Your task to perform on an android device: Open sound settings Image 0: 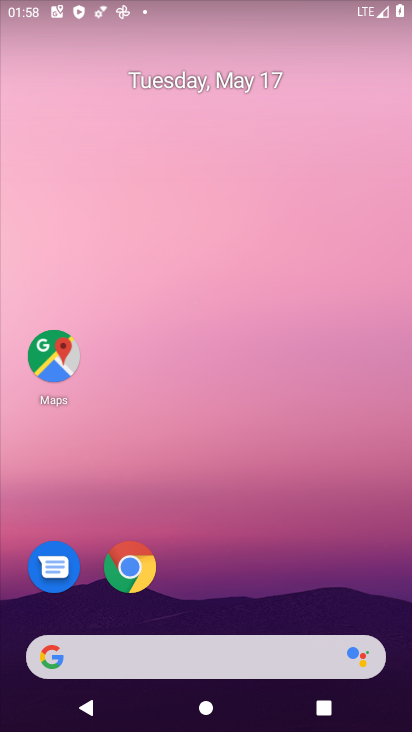
Step 0: drag from (396, 626) to (333, 32)
Your task to perform on an android device: Open sound settings Image 1: 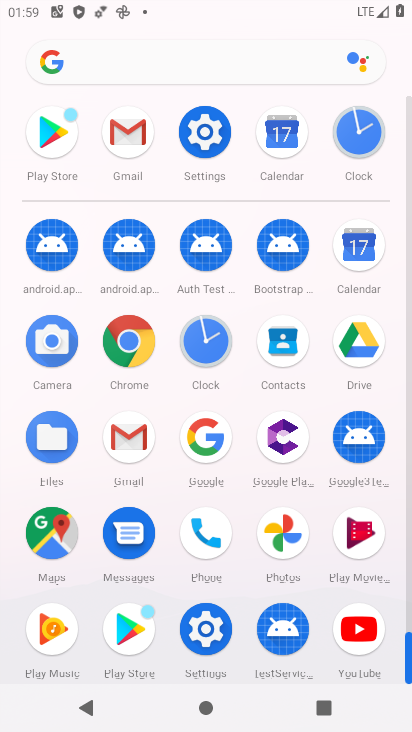
Step 1: click (206, 630)
Your task to perform on an android device: Open sound settings Image 2: 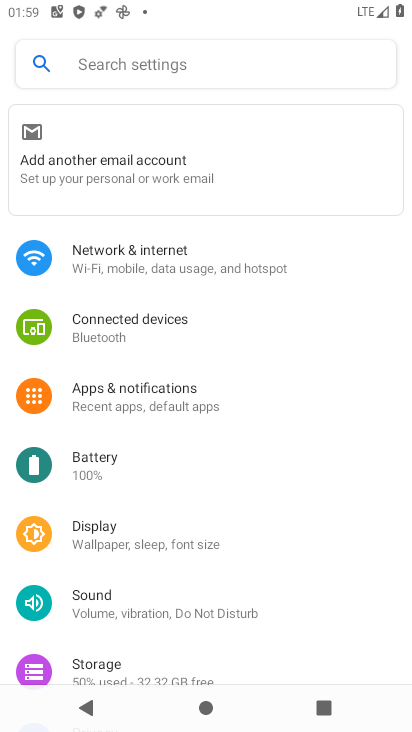
Step 2: click (106, 602)
Your task to perform on an android device: Open sound settings Image 3: 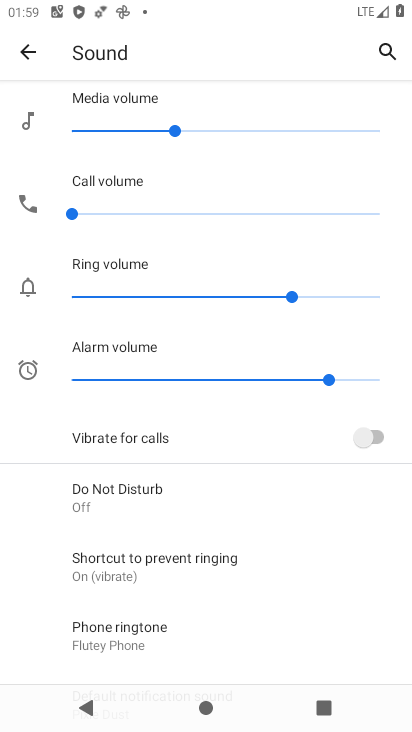
Step 3: drag from (309, 644) to (322, 329)
Your task to perform on an android device: Open sound settings Image 4: 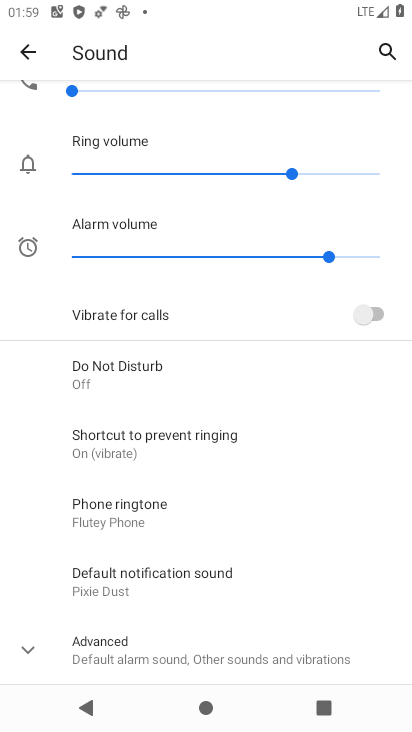
Step 4: click (27, 655)
Your task to perform on an android device: Open sound settings Image 5: 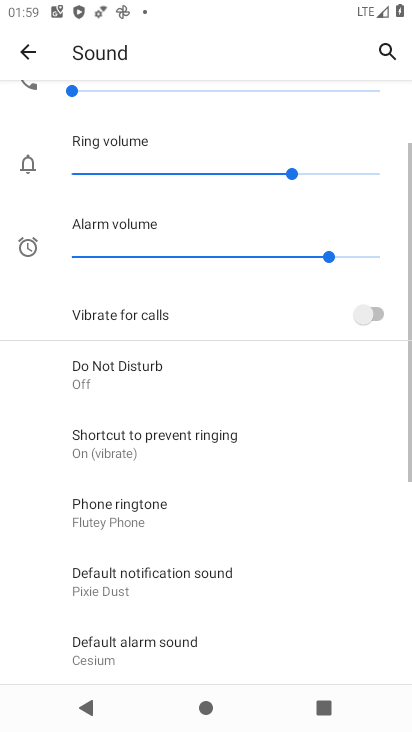
Step 5: task complete